Your task to perform on an android device: empty trash in the gmail app Image 0: 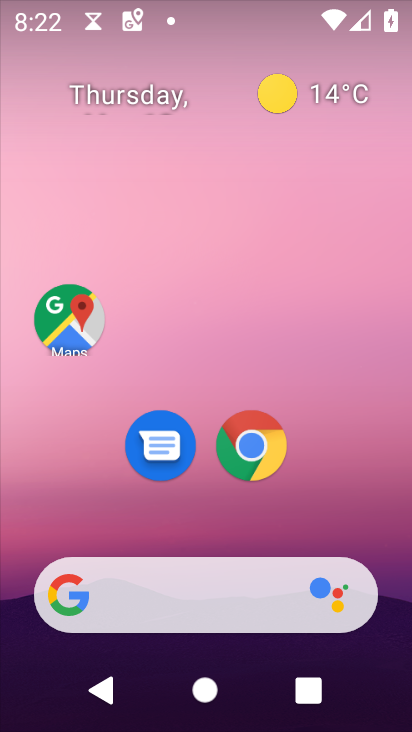
Step 0: drag from (223, 717) to (193, 166)
Your task to perform on an android device: empty trash in the gmail app Image 1: 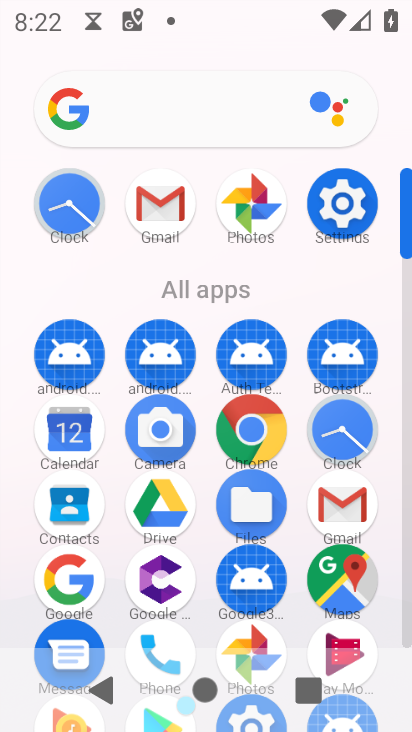
Step 1: click (343, 512)
Your task to perform on an android device: empty trash in the gmail app Image 2: 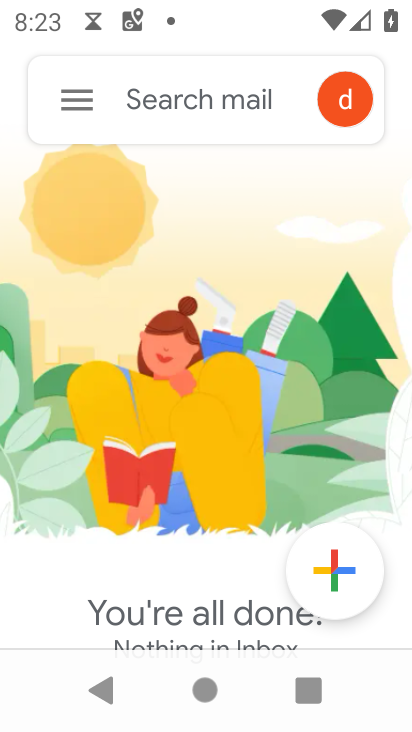
Step 2: click (82, 98)
Your task to perform on an android device: empty trash in the gmail app Image 3: 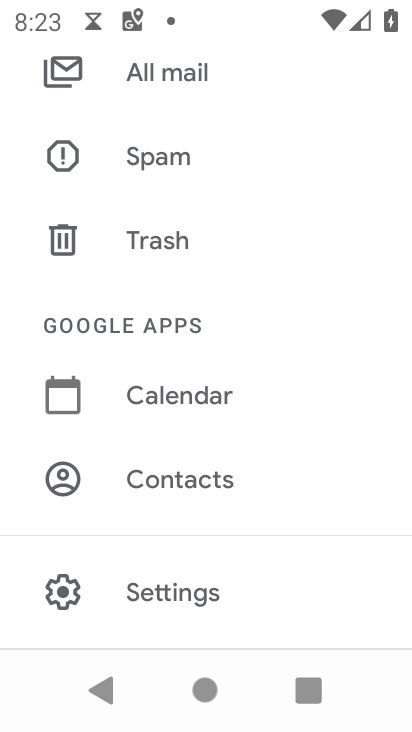
Step 3: click (145, 236)
Your task to perform on an android device: empty trash in the gmail app Image 4: 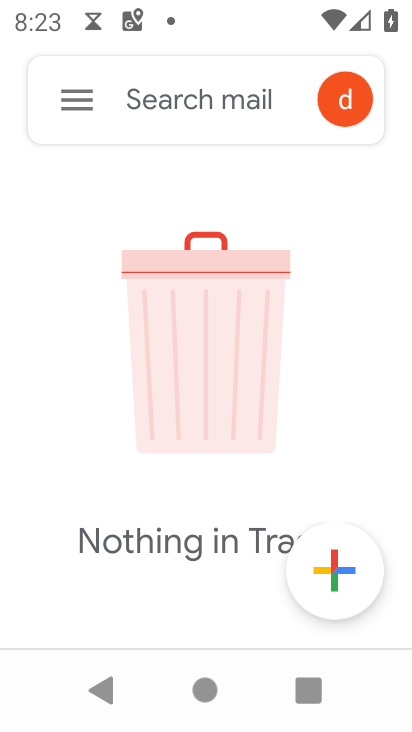
Step 4: task complete